Your task to perform on an android device: toggle pop-ups in chrome Image 0: 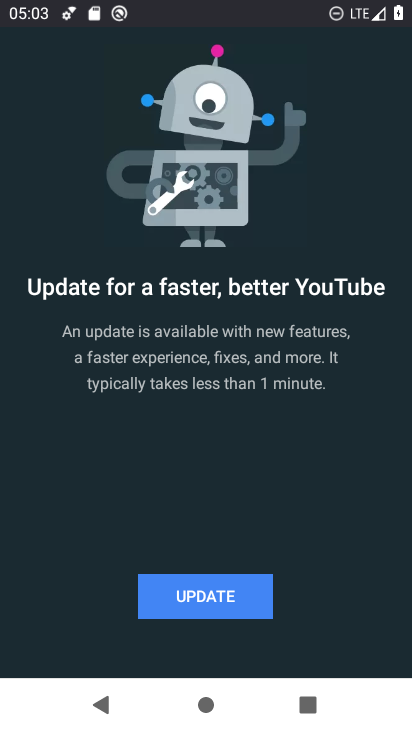
Step 0: press back button
Your task to perform on an android device: toggle pop-ups in chrome Image 1: 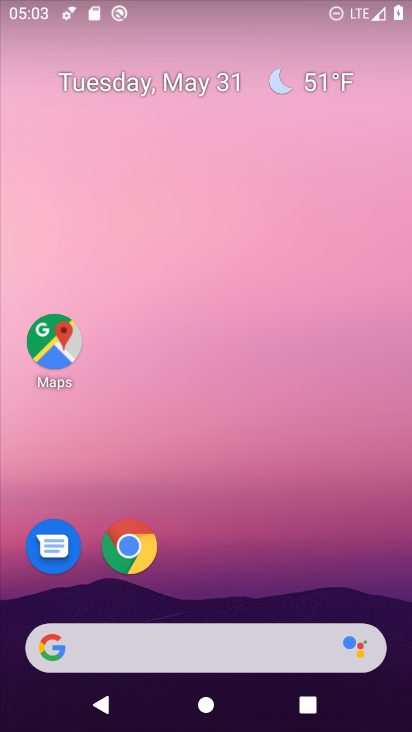
Step 1: drag from (203, 589) to (234, 194)
Your task to perform on an android device: toggle pop-ups in chrome Image 2: 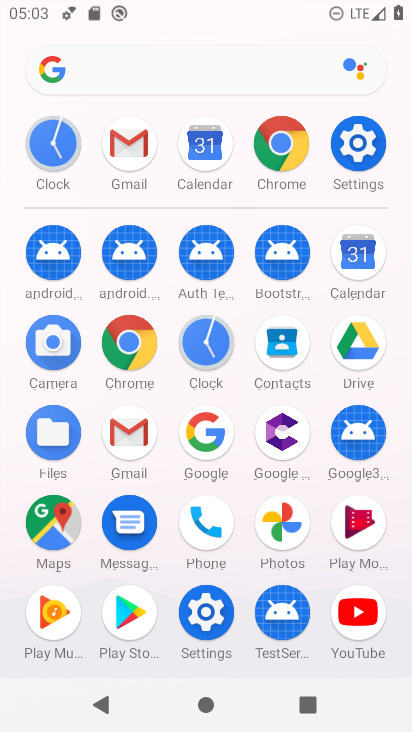
Step 2: click (289, 180)
Your task to perform on an android device: toggle pop-ups in chrome Image 3: 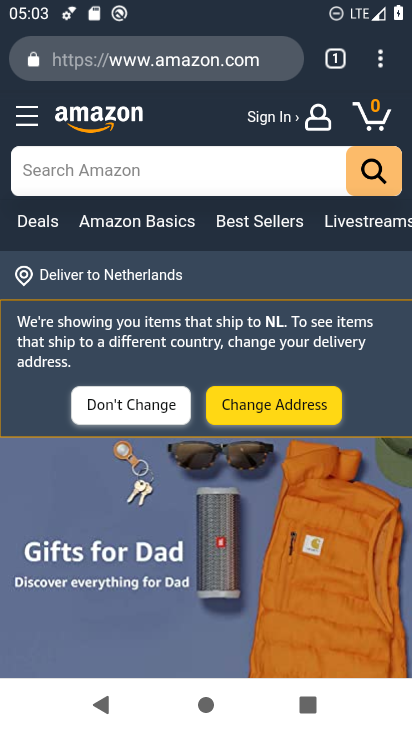
Step 3: click (377, 62)
Your task to perform on an android device: toggle pop-ups in chrome Image 4: 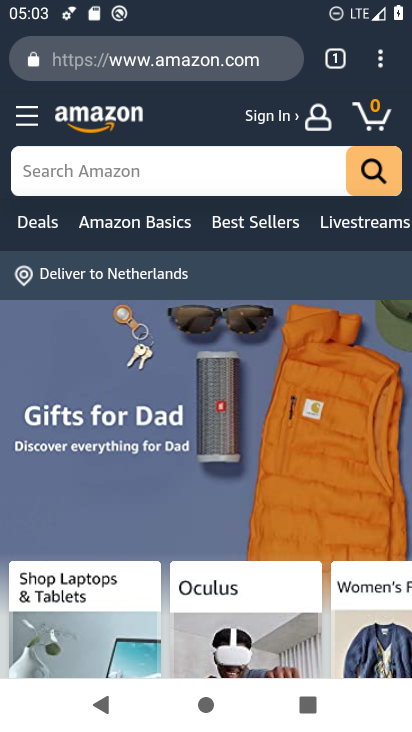
Step 4: click (384, 78)
Your task to perform on an android device: toggle pop-ups in chrome Image 5: 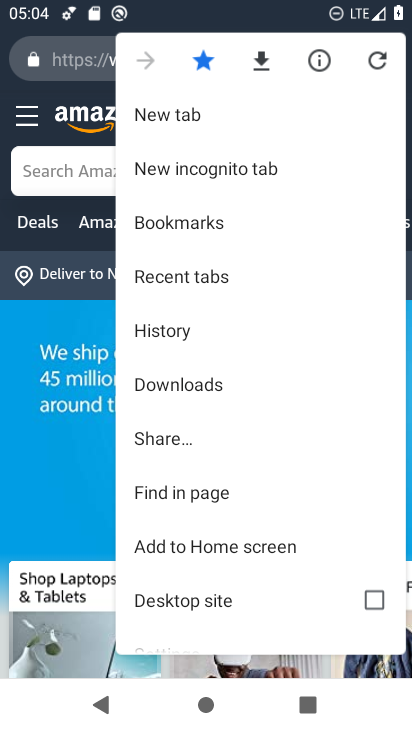
Step 5: drag from (191, 568) to (190, 257)
Your task to perform on an android device: toggle pop-ups in chrome Image 6: 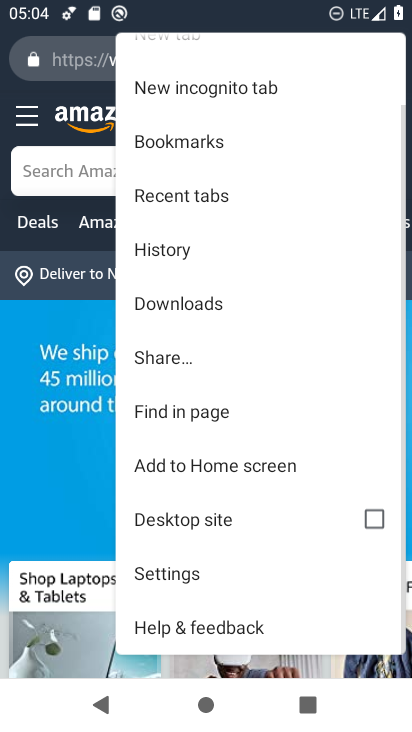
Step 6: click (163, 574)
Your task to perform on an android device: toggle pop-ups in chrome Image 7: 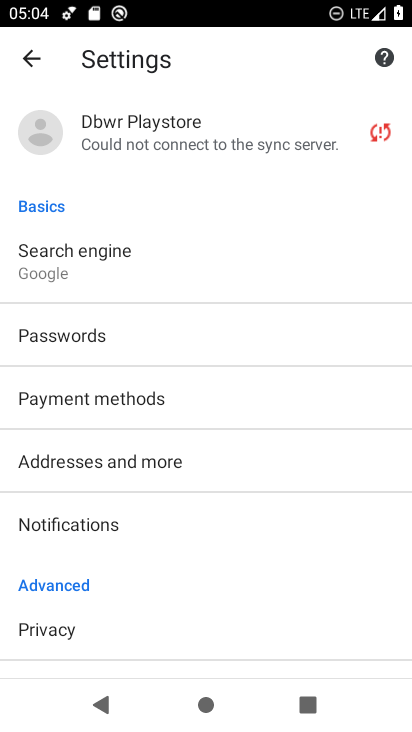
Step 7: drag from (108, 574) to (190, 313)
Your task to perform on an android device: toggle pop-ups in chrome Image 8: 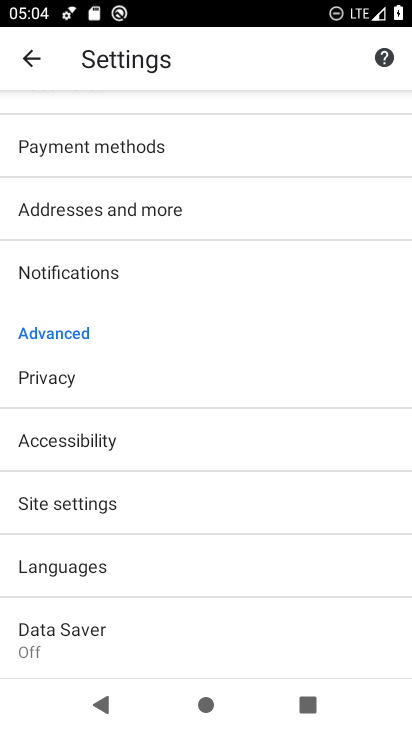
Step 8: click (64, 502)
Your task to perform on an android device: toggle pop-ups in chrome Image 9: 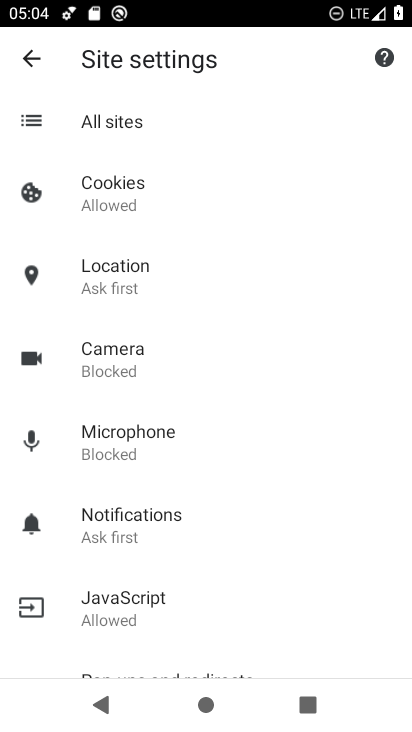
Step 9: drag from (141, 611) to (167, 286)
Your task to perform on an android device: toggle pop-ups in chrome Image 10: 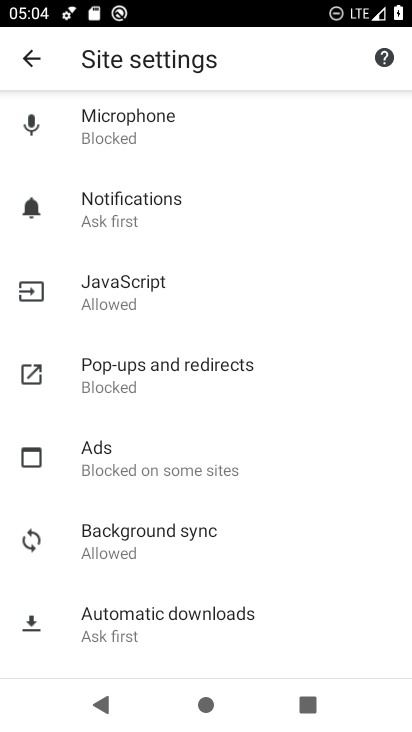
Step 10: click (134, 383)
Your task to perform on an android device: toggle pop-ups in chrome Image 11: 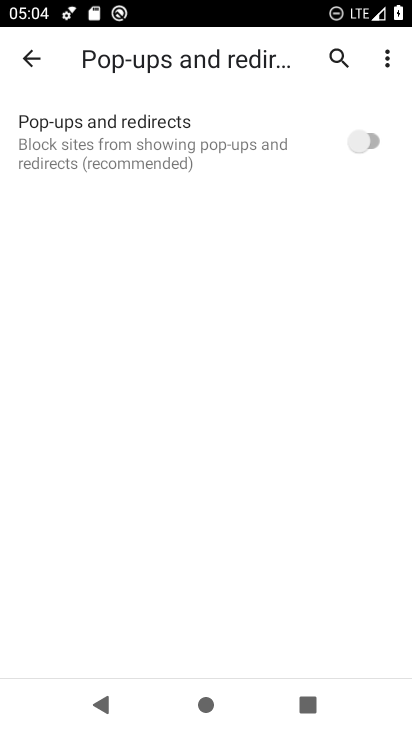
Step 11: click (377, 145)
Your task to perform on an android device: toggle pop-ups in chrome Image 12: 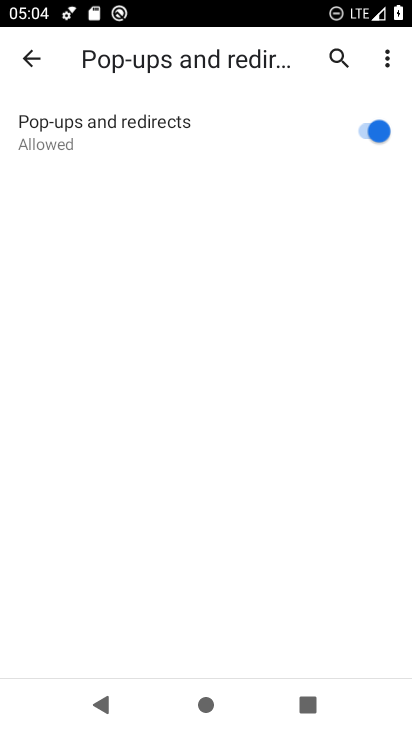
Step 12: task complete